Your task to perform on an android device: turn off notifications settings in the gmail app Image 0: 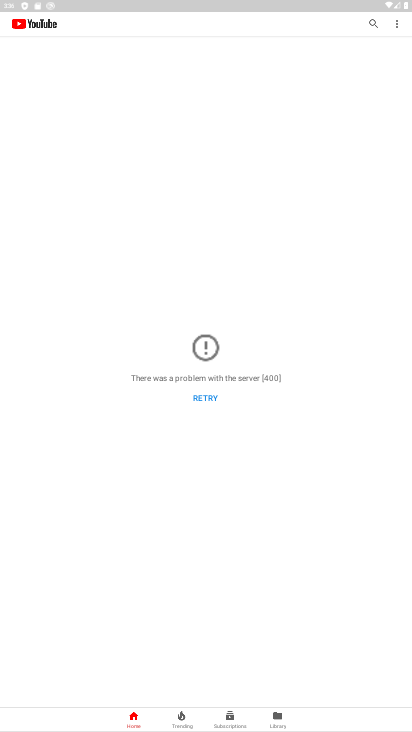
Step 0: press back button
Your task to perform on an android device: turn off notifications settings in the gmail app Image 1: 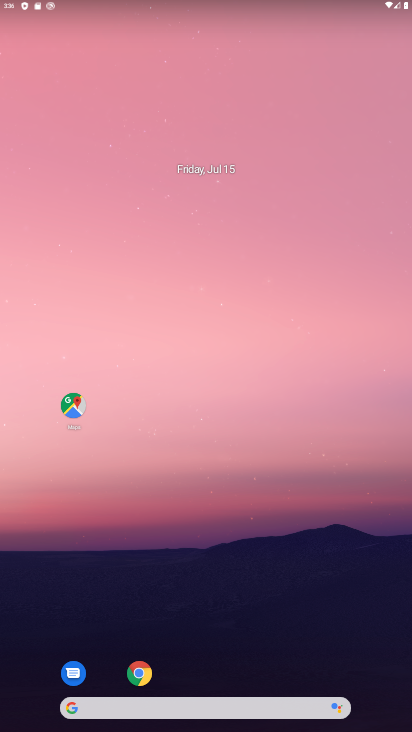
Step 1: drag from (219, 484) to (273, 48)
Your task to perform on an android device: turn off notifications settings in the gmail app Image 2: 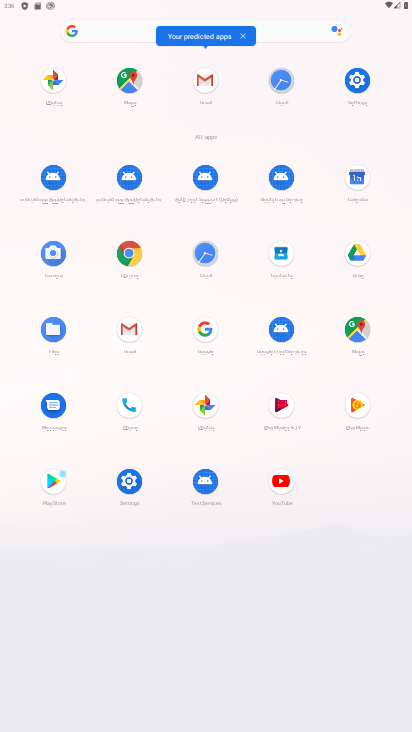
Step 2: click (197, 85)
Your task to perform on an android device: turn off notifications settings in the gmail app Image 3: 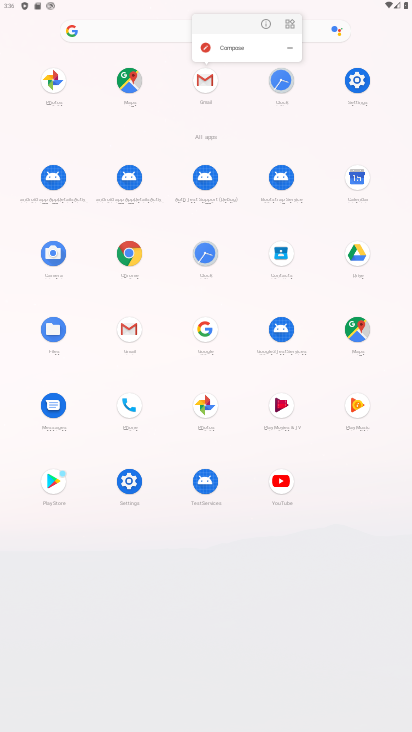
Step 3: click (266, 22)
Your task to perform on an android device: turn off notifications settings in the gmail app Image 4: 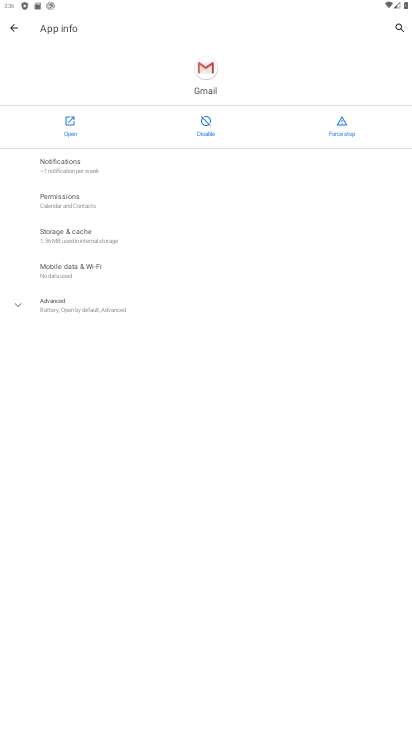
Step 4: click (76, 168)
Your task to perform on an android device: turn off notifications settings in the gmail app Image 5: 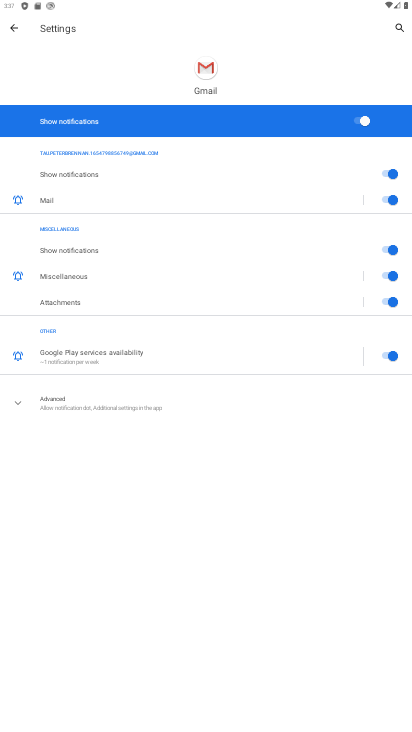
Step 5: click (362, 119)
Your task to perform on an android device: turn off notifications settings in the gmail app Image 6: 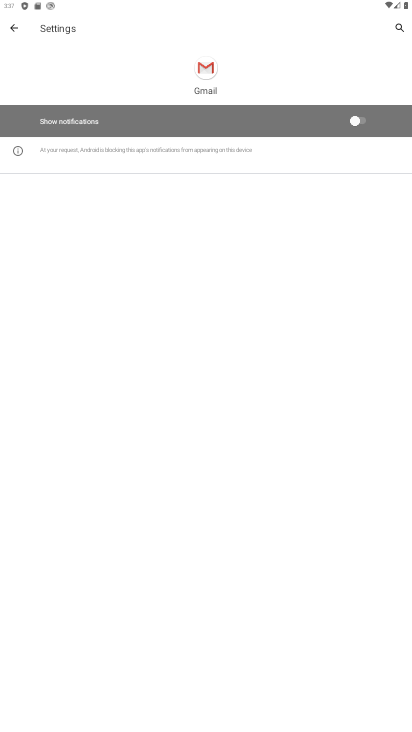
Step 6: task complete